Your task to perform on an android device: What is the recent news? Image 0: 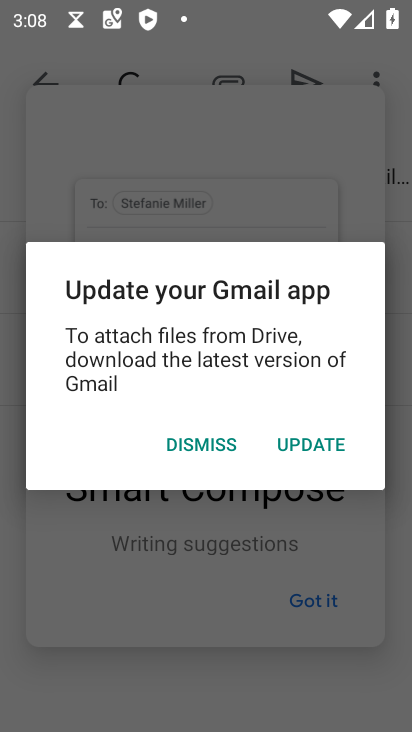
Step 0: press home button
Your task to perform on an android device: What is the recent news? Image 1: 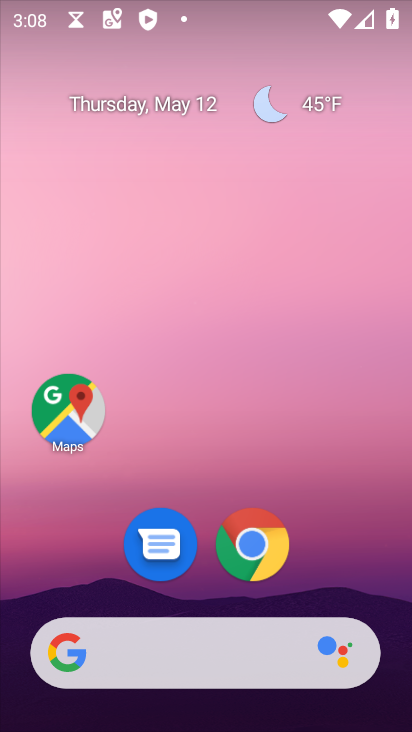
Step 1: click (182, 651)
Your task to perform on an android device: What is the recent news? Image 2: 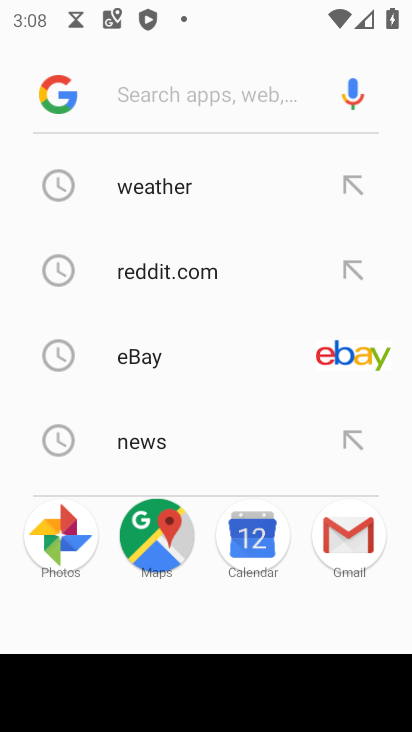
Step 2: type "what is the recent news"
Your task to perform on an android device: What is the recent news? Image 3: 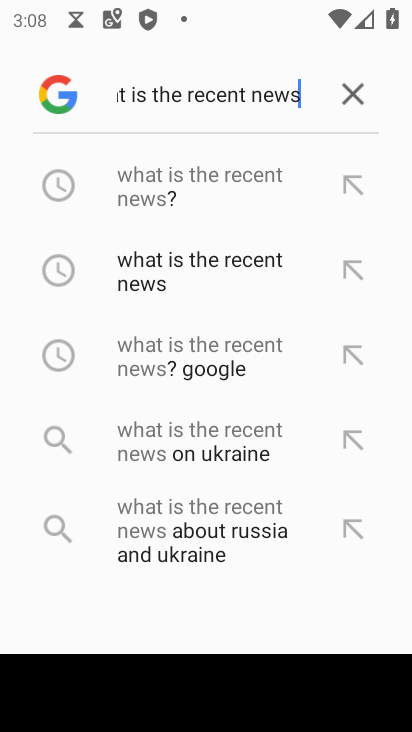
Step 3: click (116, 184)
Your task to perform on an android device: What is the recent news? Image 4: 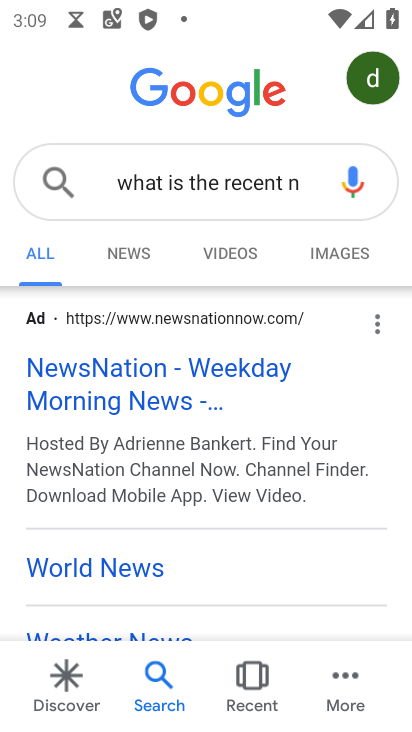
Step 4: click (129, 258)
Your task to perform on an android device: What is the recent news? Image 5: 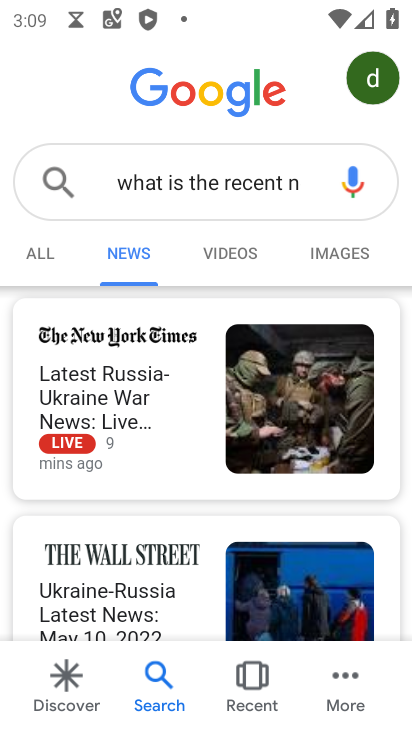
Step 5: task complete